Your task to perform on an android device: See recent photos Image 0: 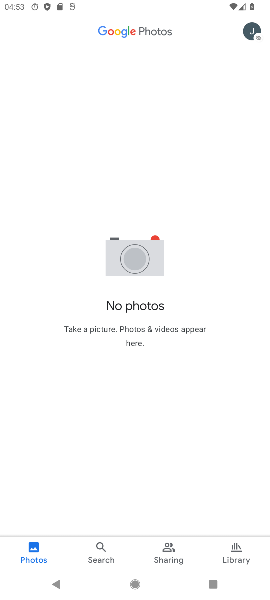
Step 0: press home button
Your task to perform on an android device: See recent photos Image 1: 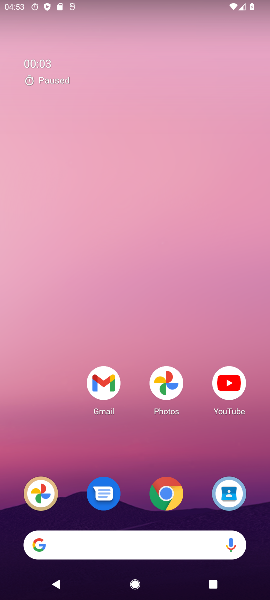
Step 1: click (162, 378)
Your task to perform on an android device: See recent photos Image 2: 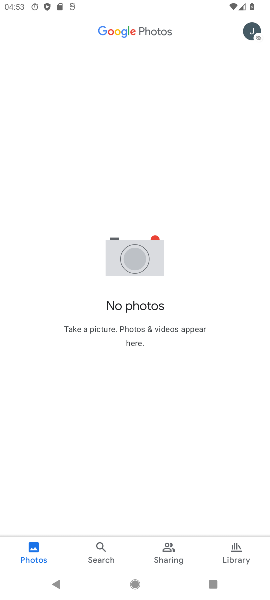
Step 2: task complete